Your task to perform on an android device: Check the weather Image 0: 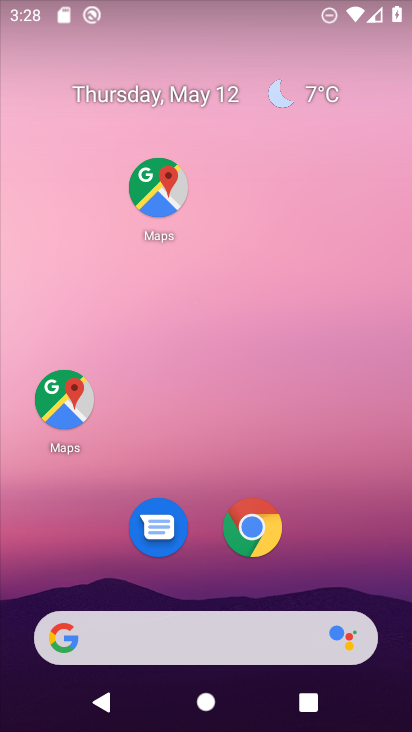
Step 0: drag from (194, 589) to (115, 27)
Your task to perform on an android device: Check the weather Image 1: 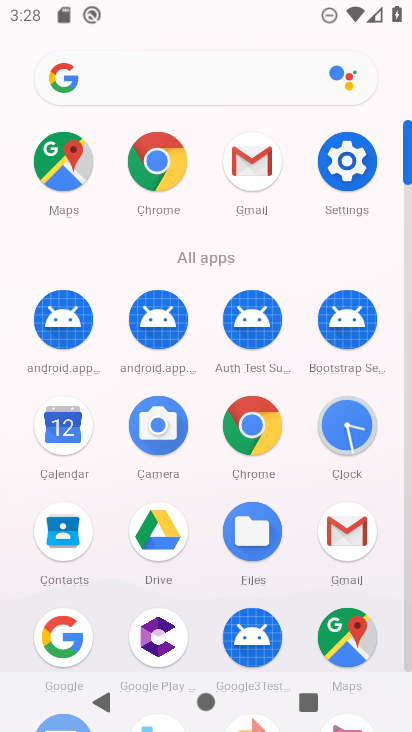
Step 1: click (70, 631)
Your task to perform on an android device: Check the weather Image 2: 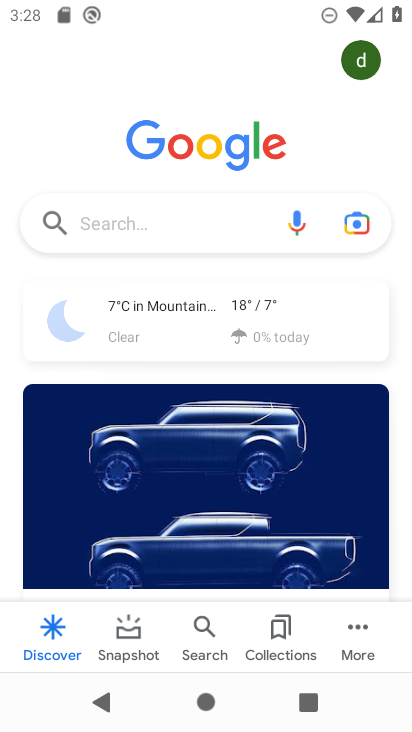
Step 2: click (141, 234)
Your task to perform on an android device: Check the weather Image 3: 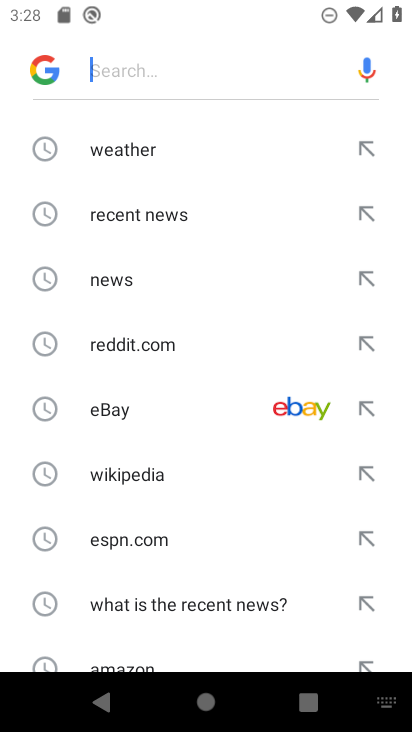
Step 3: click (87, 151)
Your task to perform on an android device: Check the weather Image 4: 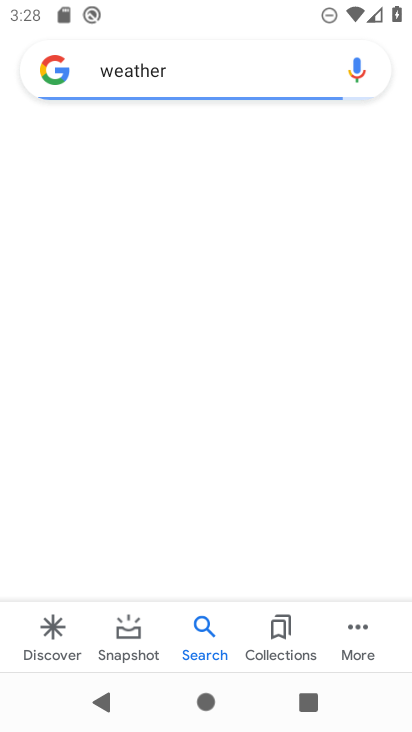
Step 4: task complete